Your task to perform on an android device: Show me popular games on the Play Store Image 0: 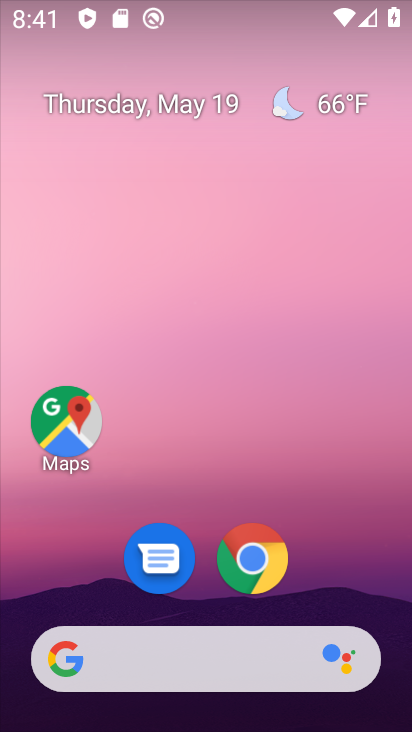
Step 0: drag from (212, 584) to (212, 225)
Your task to perform on an android device: Show me popular games on the Play Store Image 1: 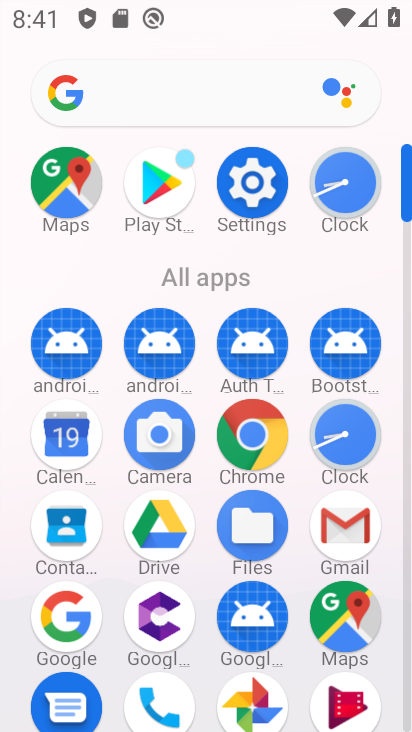
Step 1: drag from (202, 664) to (225, 300)
Your task to perform on an android device: Show me popular games on the Play Store Image 2: 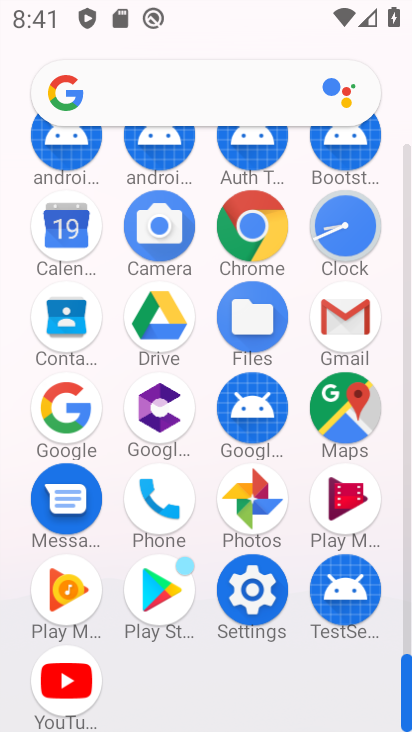
Step 2: click (163, 577)
Your task to perform on an android device: Show me popular games on the Play Store Image 3: 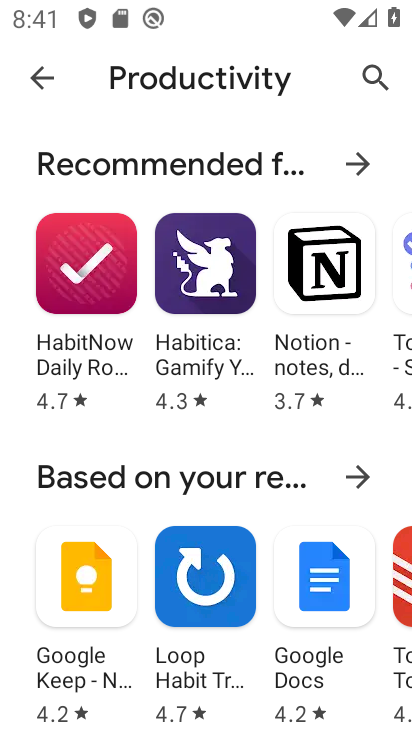
Step 3: click (50, 72)
Your task to perform on an android device: Show me popular games on the Play Store Image 4: 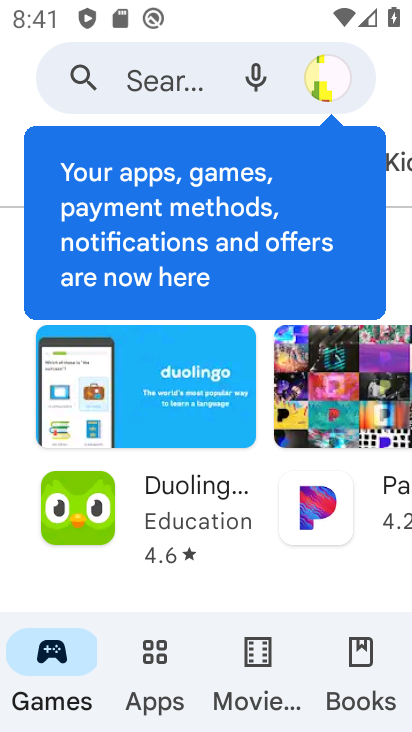
Step 4: click (249, 208)
Your task to perform on an android device: Show me popular games on the Play Store Image 5: 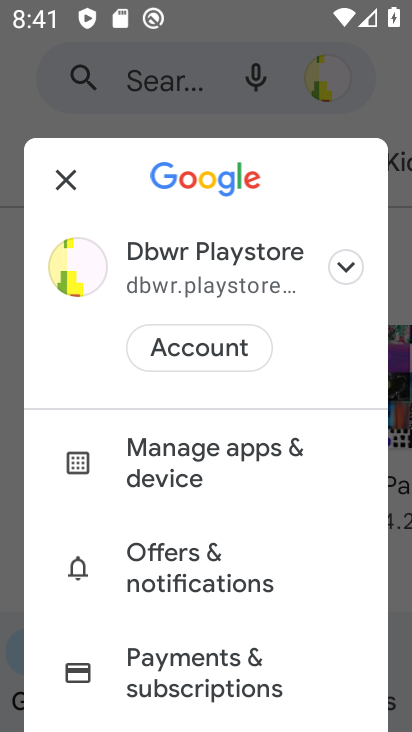
Step 5: click (56, 165)
Your task to perform on an android device: Show me popular games on the Play Store Image 6: 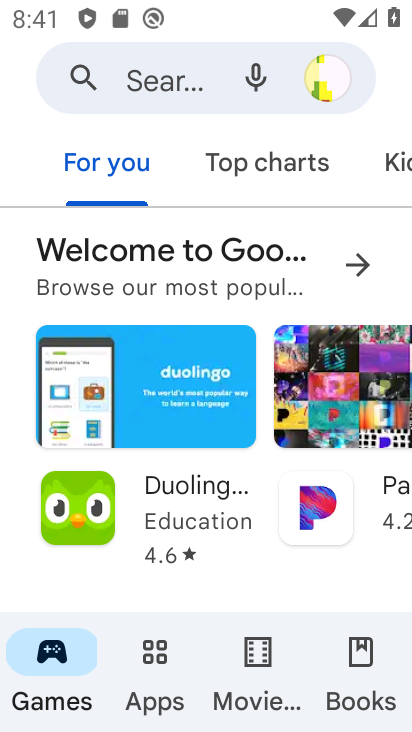
Step 6: drag from (332, 171) to (115, 174)
Your task to perform on an android device: Show me popular games on the Play Store Image 7: 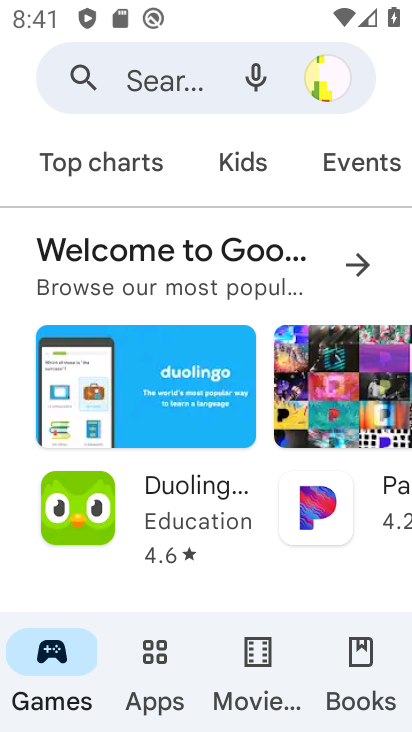
Step 7: drag from (299, 167) to (52, 167)
Your task to perform on an android device: Show me popular games on the Play Store Image 8: 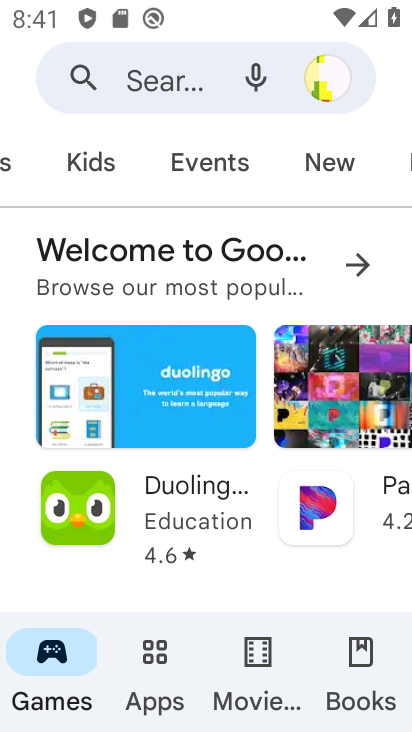
Step 8: drag from (330, 169) to (39, 174)
Your task to perform on an android device: Show me popular games on the Play Store Image 9: 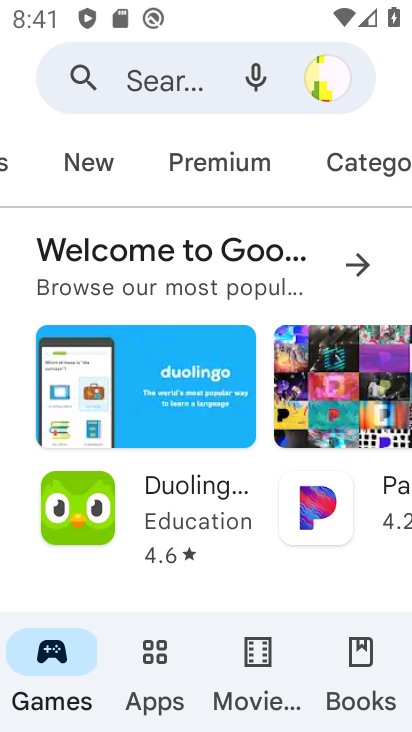
Step 9: drag from (287, 154) to (58, 170)
Your task to perform on an android device: Show me popular games on the Play Store Image 10: 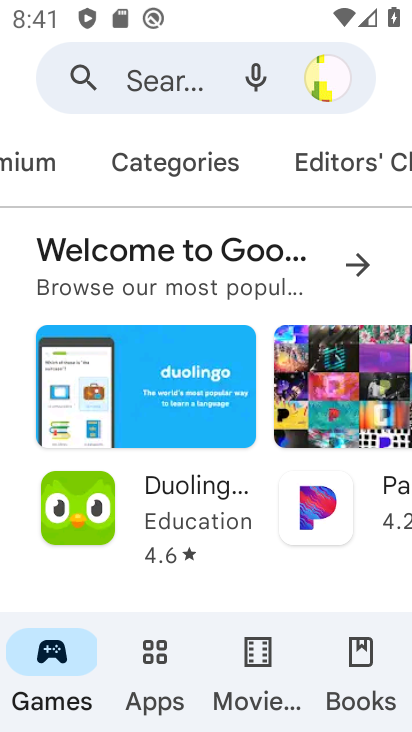
Step 10: drag from (274, 161) to (16, 184)
Your task to perform on an android device: Show me popular games on the Play Store Image 11: 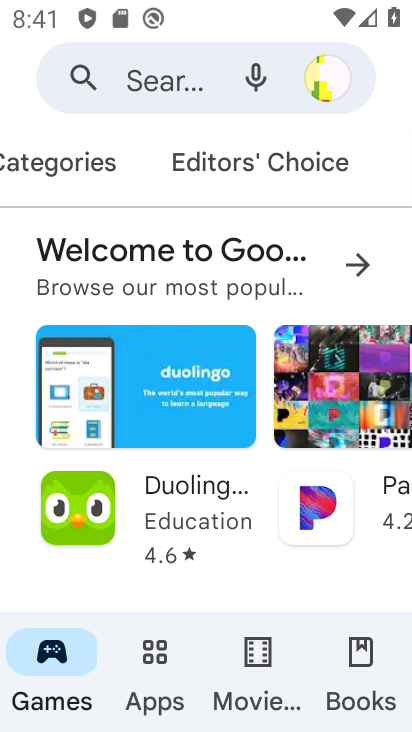
Step 11: drag from (279, 167) to (12, 181)
Your task to perform on an android device: Show me popular games on the Play Store Image 12: 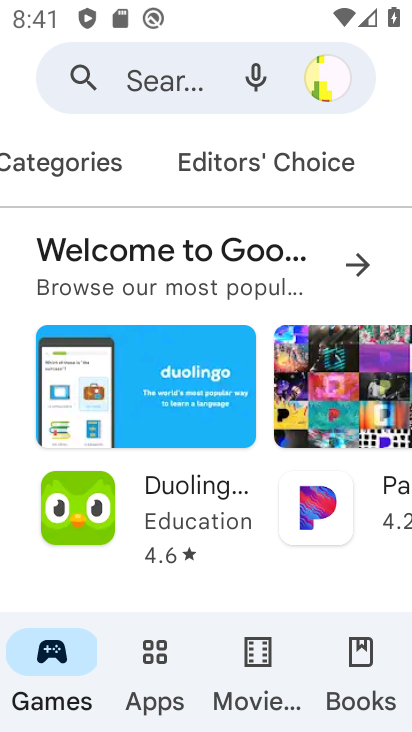
Step 12: drag from (96, 161) to (341, 176)
Your task to perform on an android device: Show me popular games on the Play Store Image 13: 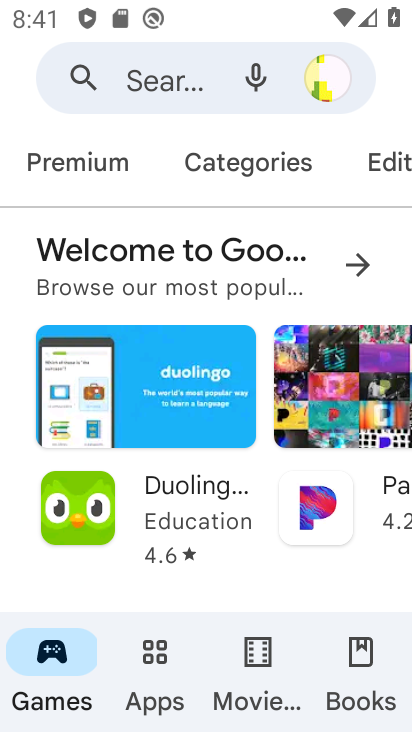
Step 13: drag from (117, 158) to (343, 179)
Your task to perform on an android device: Show me popular games on the Play Store Image 14: 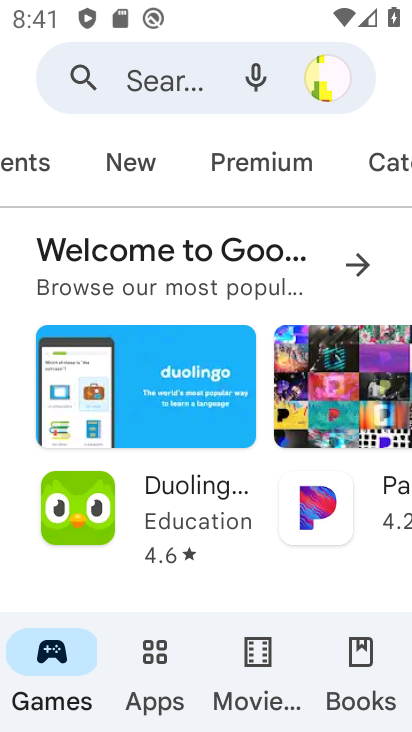
Step 14: drag from (132, 156) to (371, 167)
Your task to perform on an android device: Show me popular games on the Play Store Image 15: 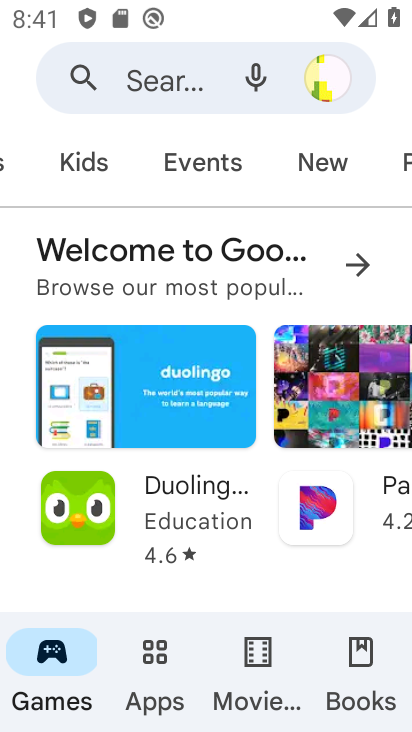
Step 15: drag from (151, 156) to (297, 163)
Your task to perform on an android device: Show me popular games on the Play Store Image 16: 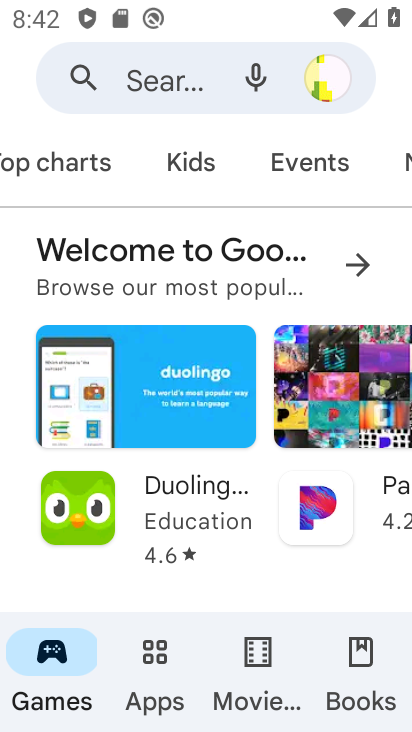
Step 16: click (57, 154)
Your task to perform on an android device: Show me popular games on the Play Store Image 17: 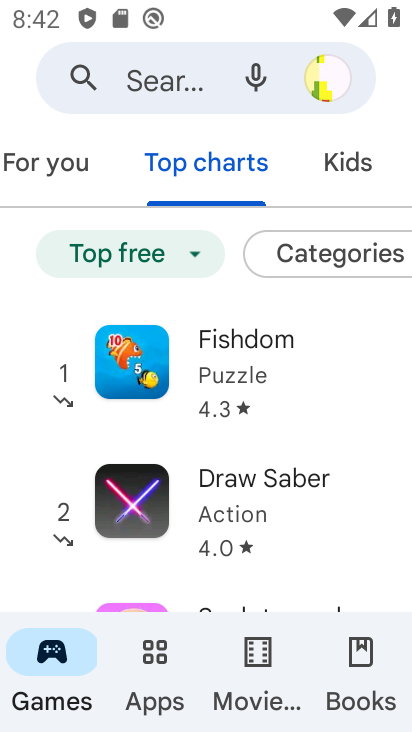
Step 17: task complete